Your task to perform on an android device: Show me recent news Image 0: 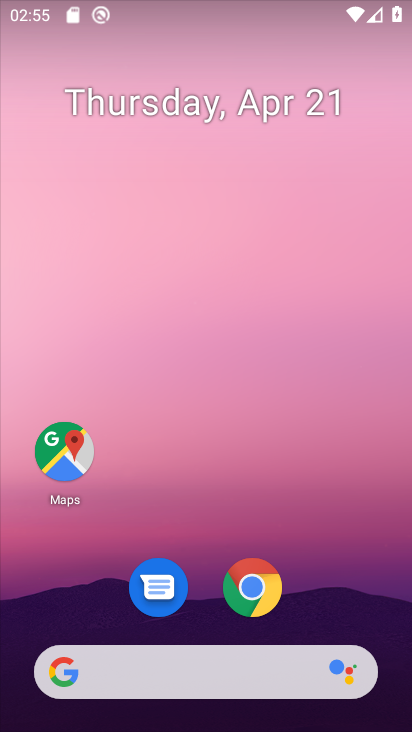
Step 0: drag from (7, 254) to (407, 424)
Your task to perform on an android device: Show me recent news Image 1: 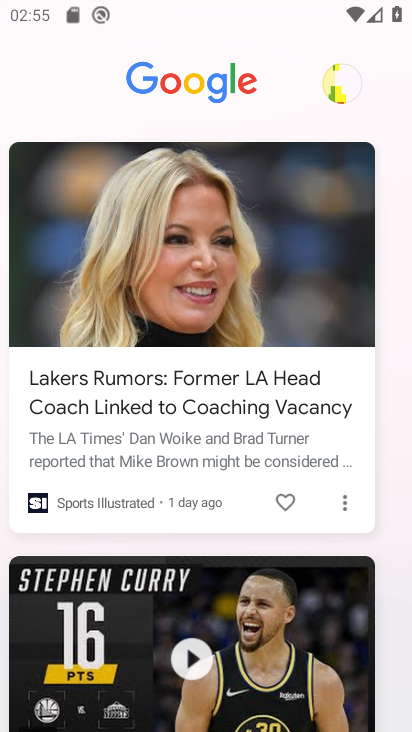
Step 1: task complete